Your task to perform on an android device: clear history in the chrome app Image 0: 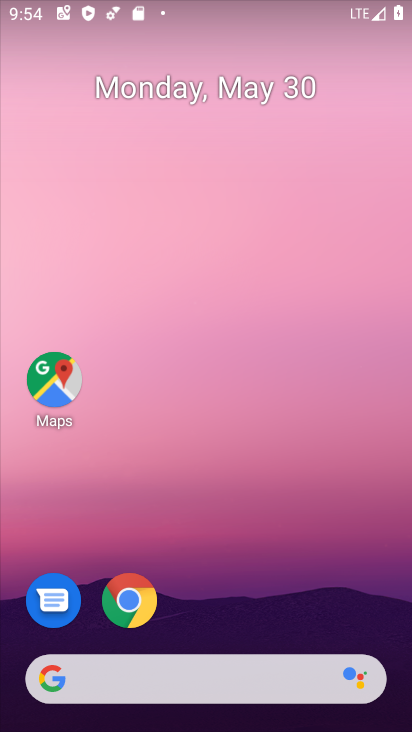
Step 0: click (133, 608)
Your task to perform on an android device: clear history in the chrome app Image 1: 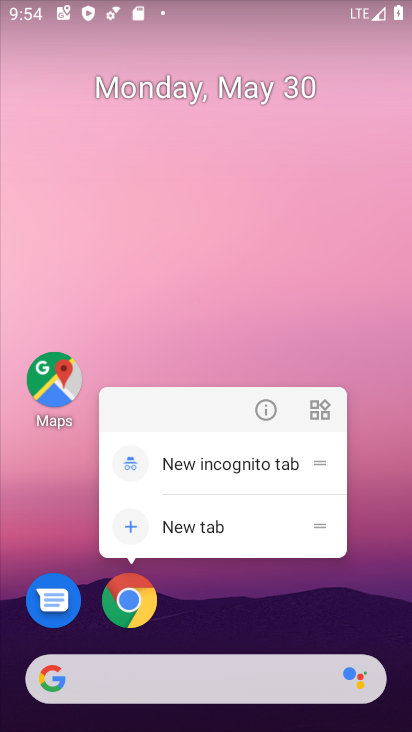
Step 1: click (133, 608)
Your task to perform on an android device: clear history in the chrome app Image 2: 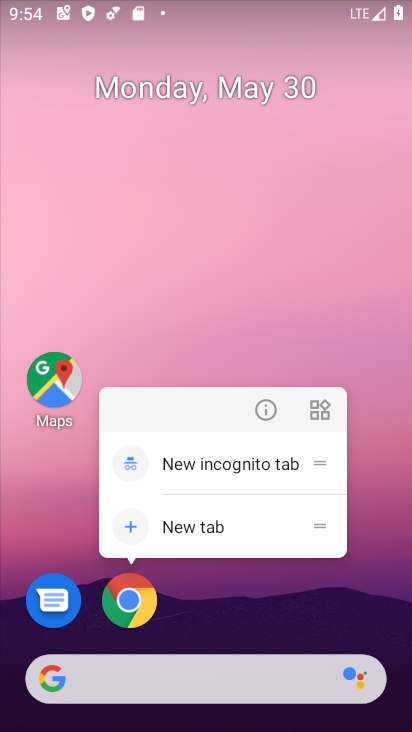
Step 2: click (133, 606)
Your task to perform on an android device: clear history in the chrome app Image 3: 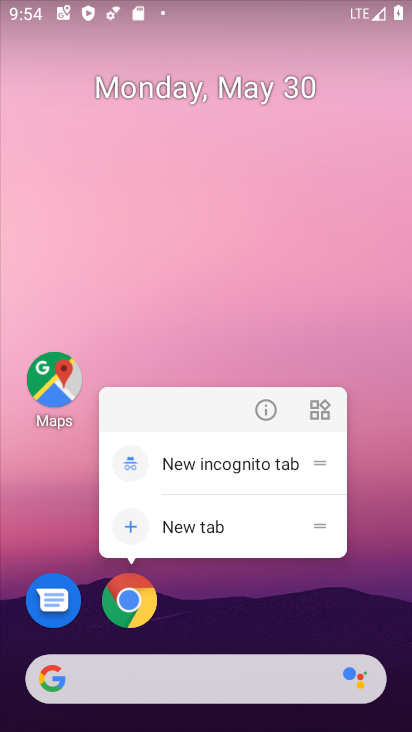
Step 3: click (132, 605)
Your task to perform on an android device: clear history in the chrome app Image 4: 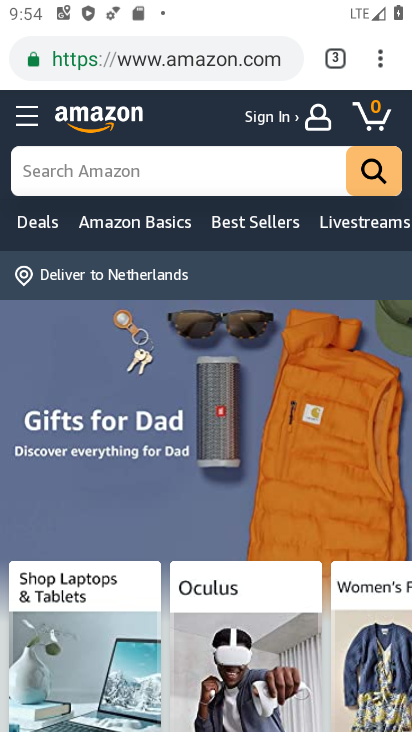
Step 4: drag from (384, 54) to (173, 342)
Your task to perform on an android device: clear history in the chrome app Image 5: 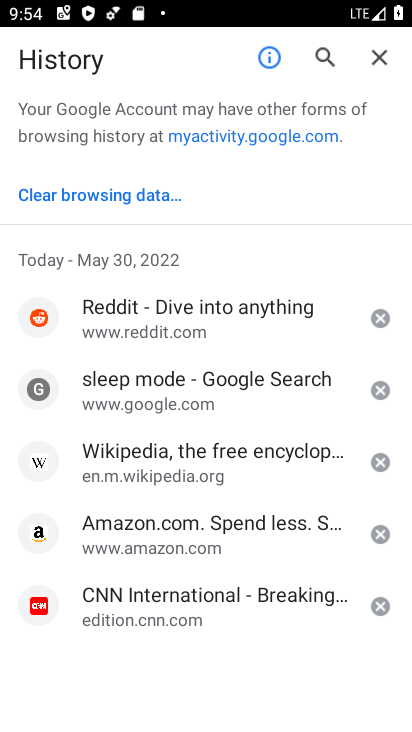
Step 5: click (48, 198)
Your task to perform on an android device: clear history in the chrome app Image 6: 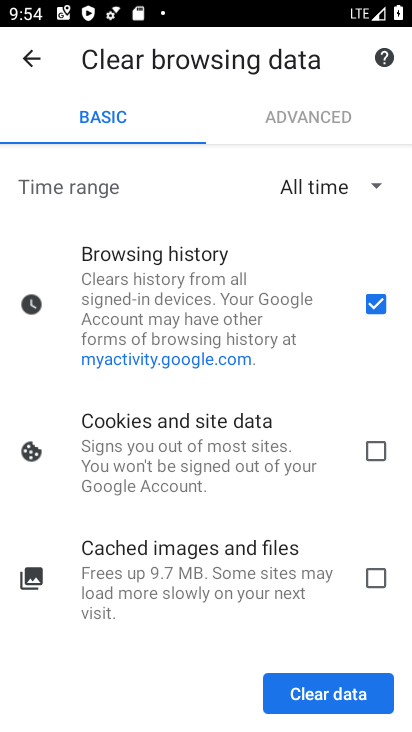
Step 6: click (338, 702)
Your task to perform on an android device: clear history in the chrome app Image 7: 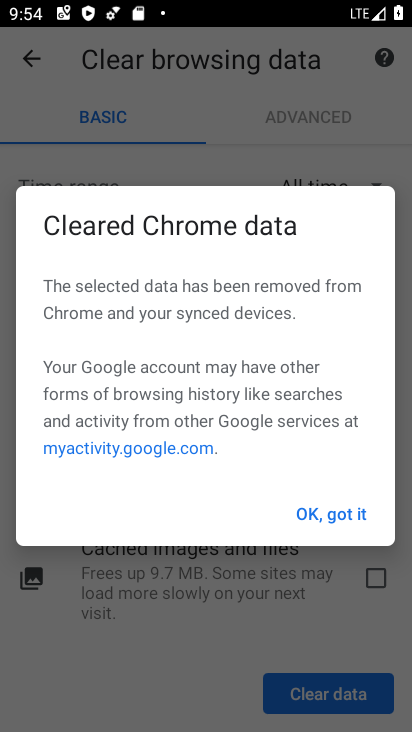
Step 7: click (331, 520)
Your task to perform on an android device: clear history in the chrome app Image 8: 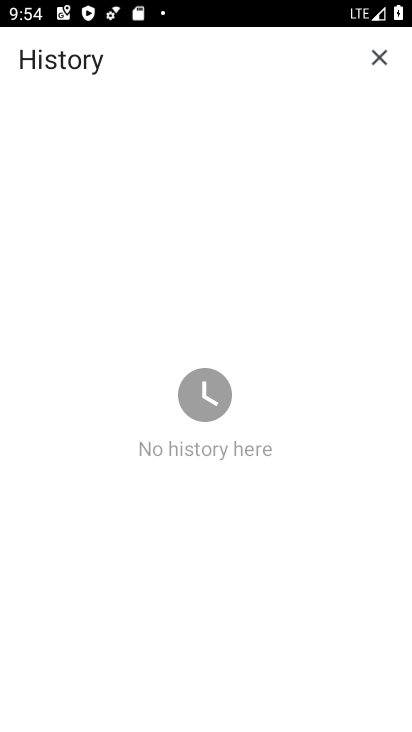
Step 8: task complete